Your task to perform on an android device: Show the shopping cart on costco. Image 0: 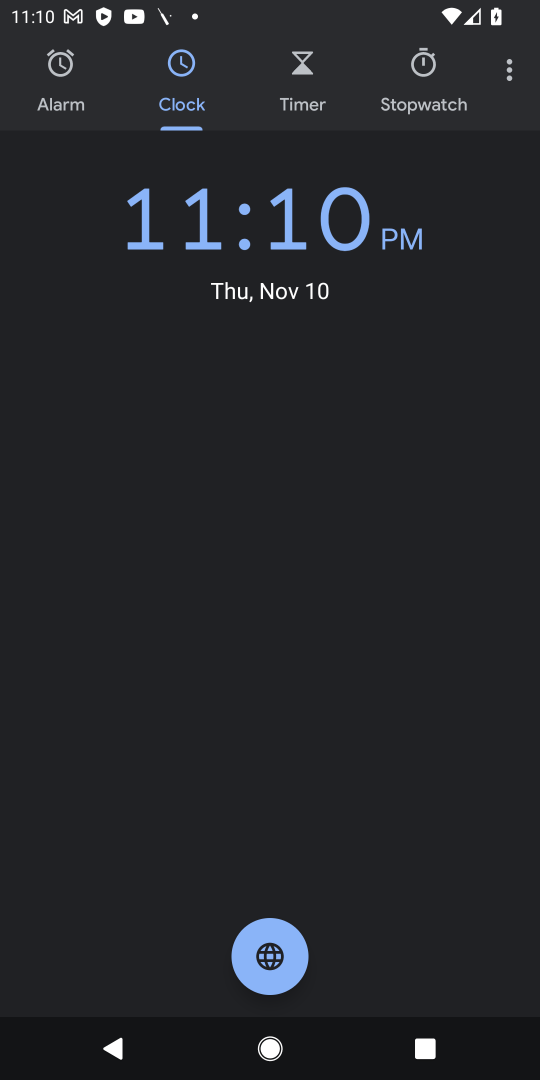
Step 0: press home button
Your task to perform on an android device: Show the shopping cart on costco. Image 1: 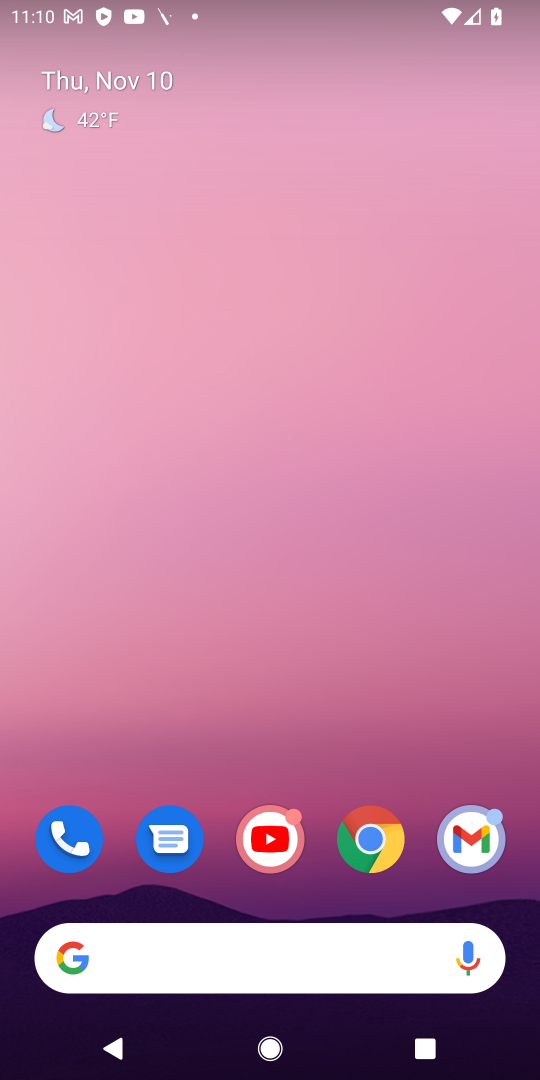
Step 1: click (369, 842)
Your task to perform on an android device: Show the shopping cart on costco. Image 2: 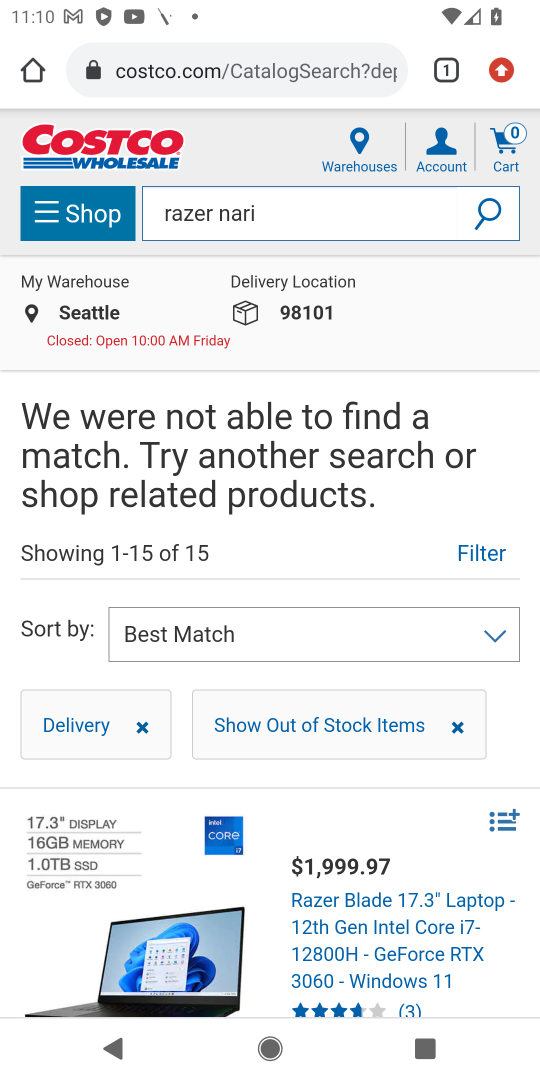
Step 2: click (500, 152)
Your task to perform on an android device: Show the shopping cart on costco. Image 3: 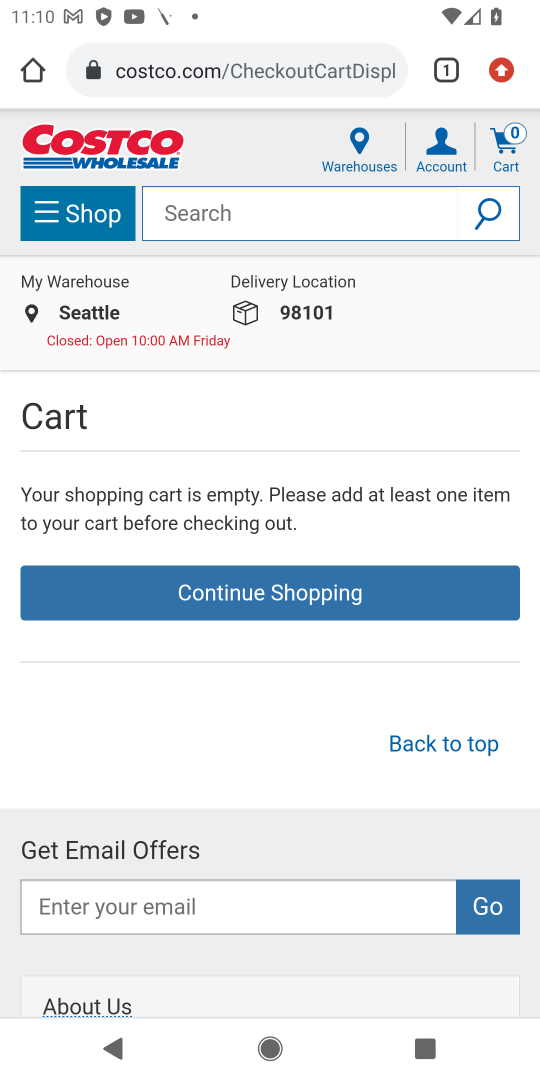
Step 3: task complete